Your task to perform on an android device: Open the Play Movies app and select the watchlist tab. Image 0: 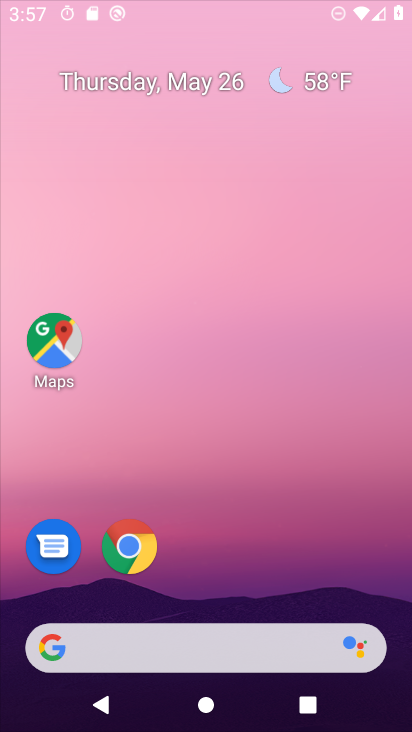
Step 0: drag from (216, 582) to (256, 12)
Your task to perform on an android device: Open the Play Movies app and select the watchlist tab. Image 1: 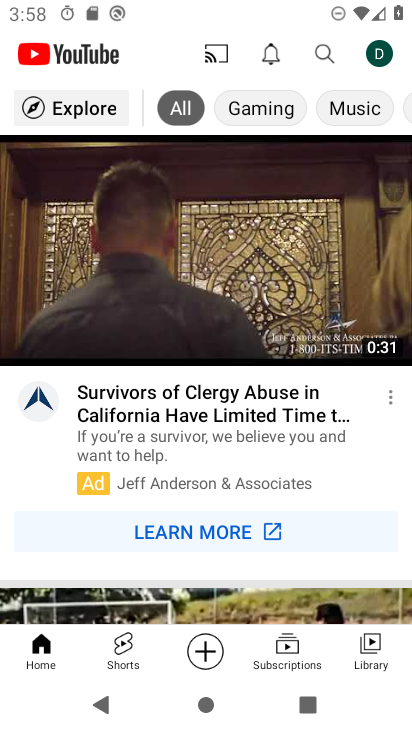
Step 1: press home button
Your task to perform on an android device: Open the Play Movies app and select the watchlist tab. Image 2: 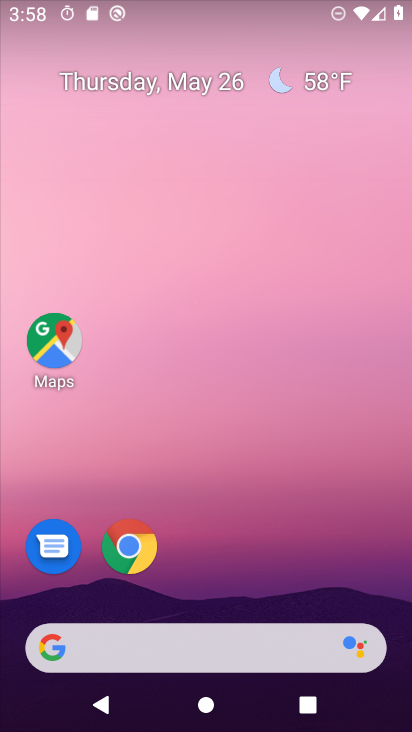
Step 2: drag from (211, 596) to (229, 64)
Your task to perform on an android device: Open the Play Movies app and select the watchlist tab. Image 3: 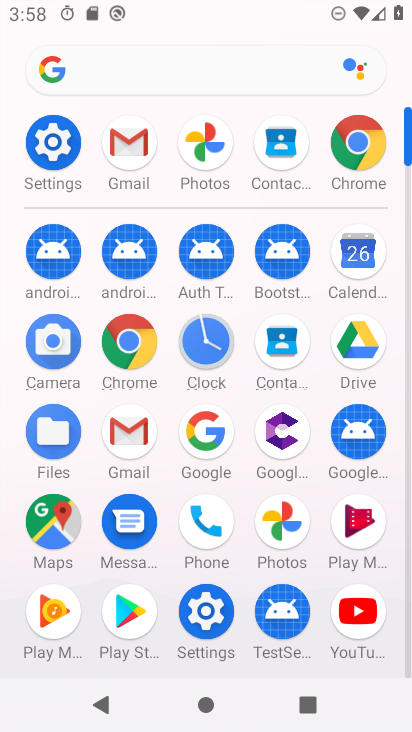
Step 3: click (353, 523)
Your task to perform on an android device: Open the Play Movies app and select the watchlist tab. Image 4: 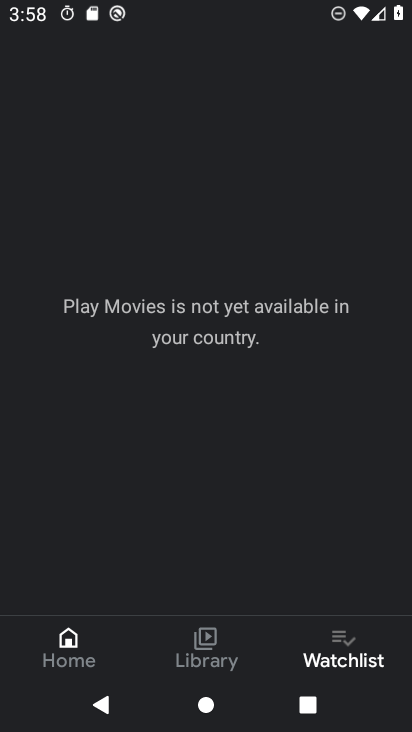
Step 4: task complete